Your task to perform on an android device: create a new album in the google photos Image 0: 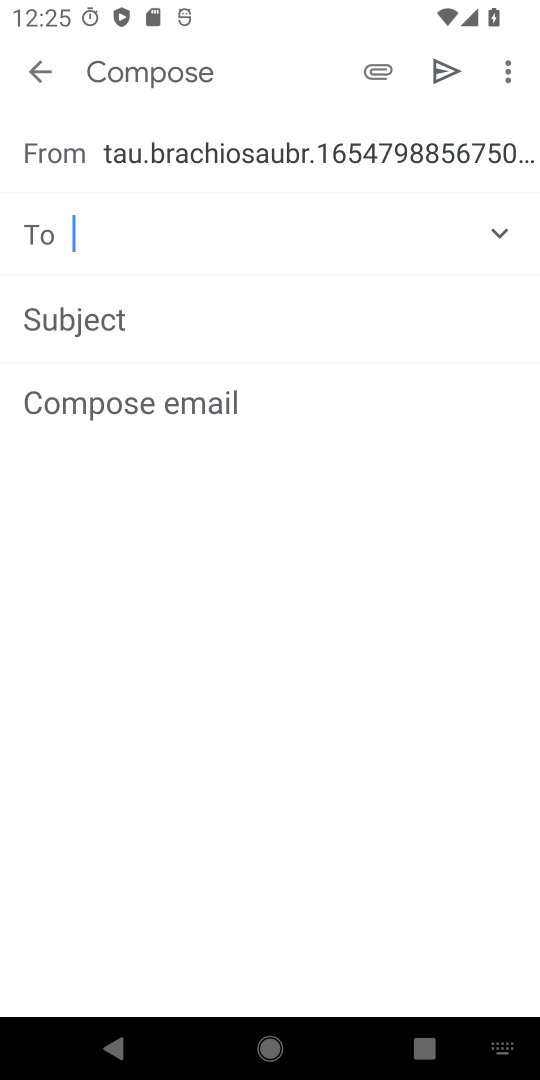
Step 0: press home button
Your task to perform on an android device: create a new album in the google photos Image 1: 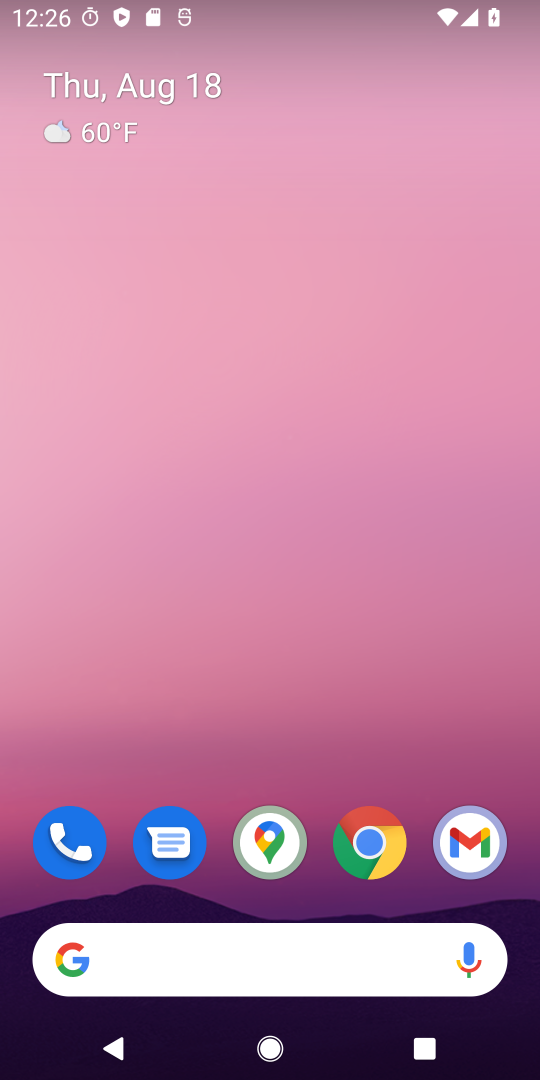
Step 1: click (405, 179)
Your task to perform on an android device: create a new album in the google photos Image 2: 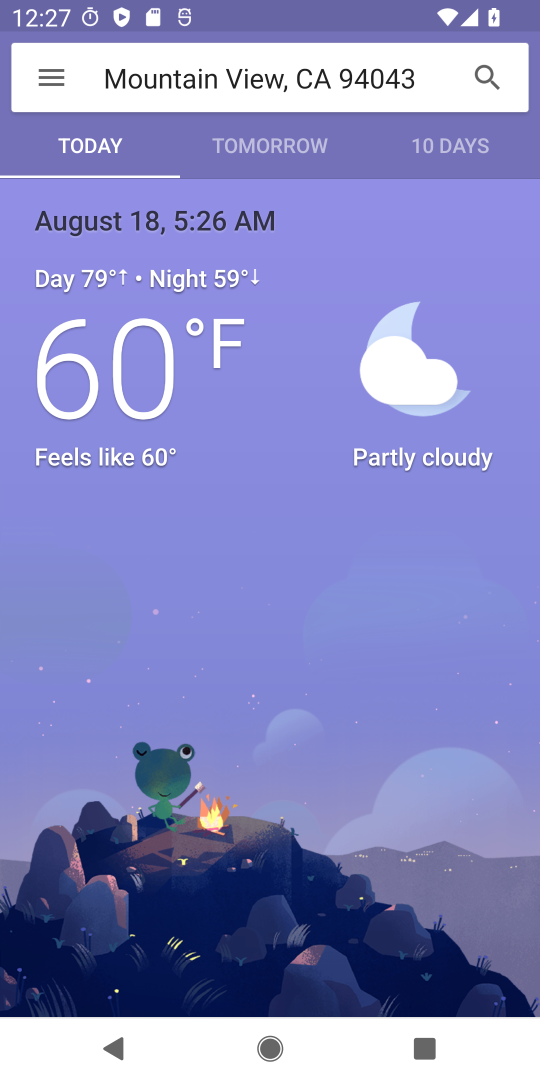
Step 2: press home button
Your task to perform on an android device: create a new album in the google photos Image 3: 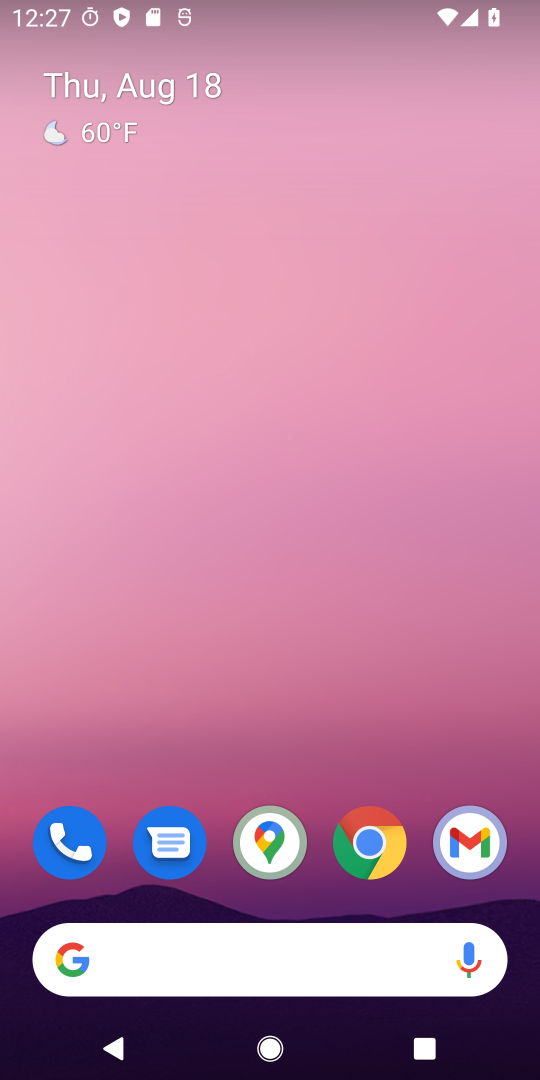
Step 3: drag from (420, 699) to (378, 6)
Your task to perform on an android device: create a new album in the google photos Image 4: 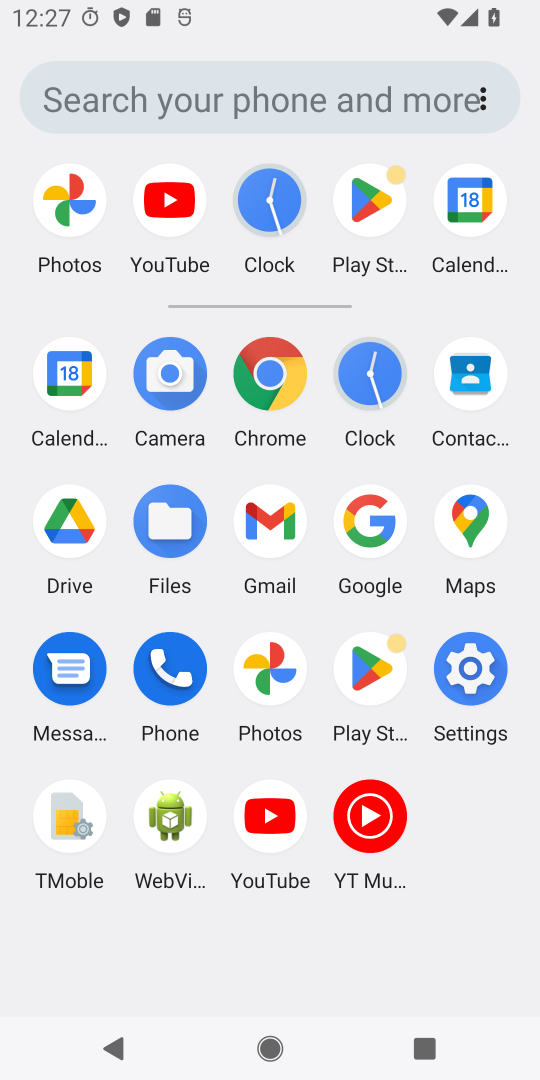
Step 4: click (259, 669)
Your task to perform on an android device: create a new album in the google photos Image 5: 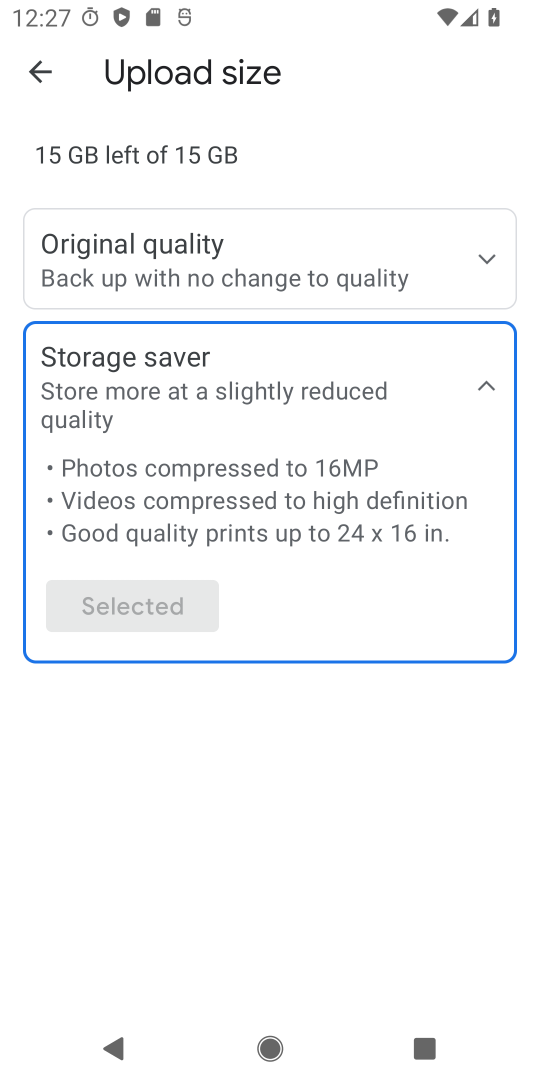
Step 5: click (46, 68)
Your task to perform on an android device: create a new album in the google photos Image 6: 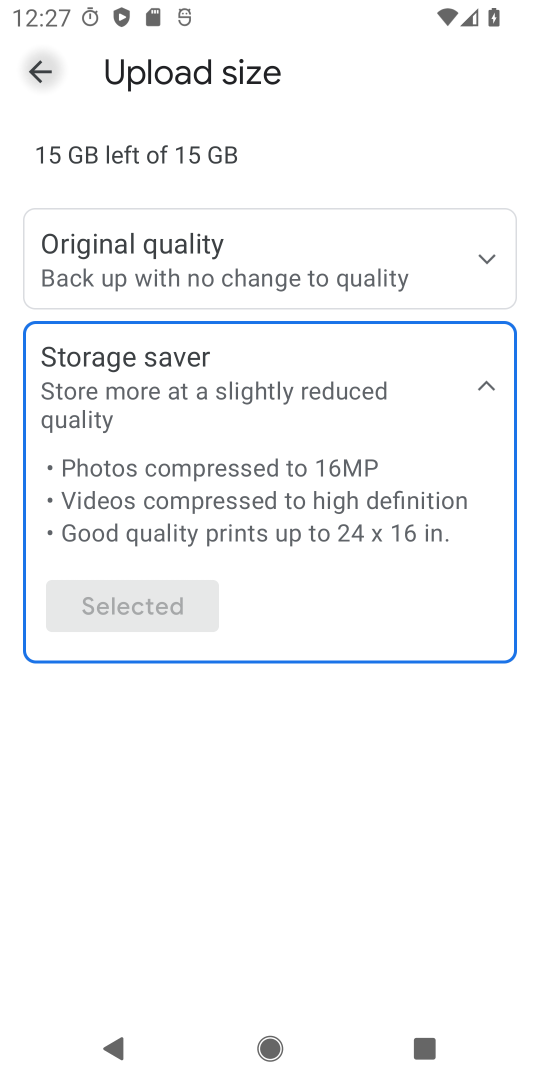
Step 6: task complete